Your task to perform on an android device: toggle translation in the chrome app Image 0: 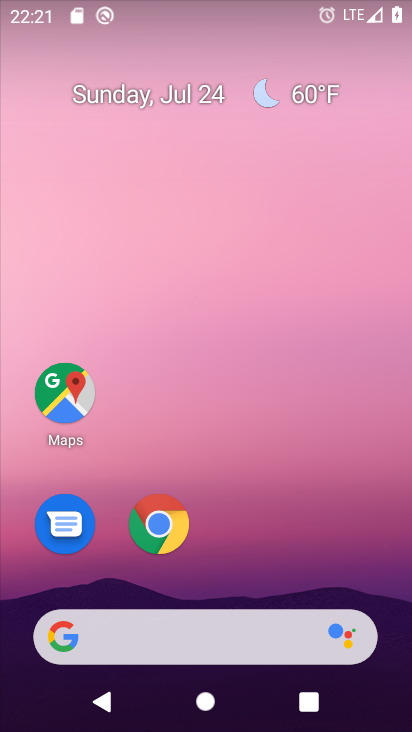
Step 0: click (160, 520)
Your task to perform on an android device: toggle translation in the chrome app Image 1: 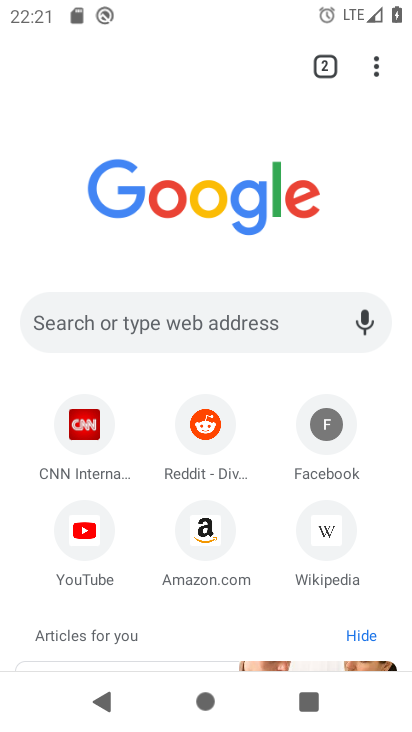
Step 1: click (373, 73)
Your task to perform on an android device: toggle translation in the chrome app Image 2: 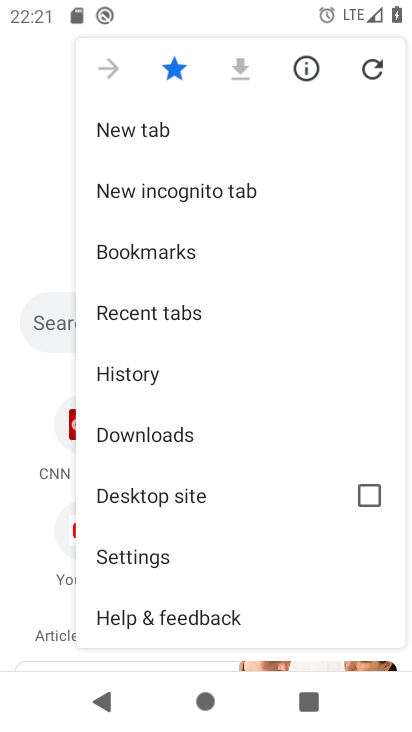
Step 2: click (163, 549)
Your task to perform on an android device: toggle translation in the chrome app Image 3: 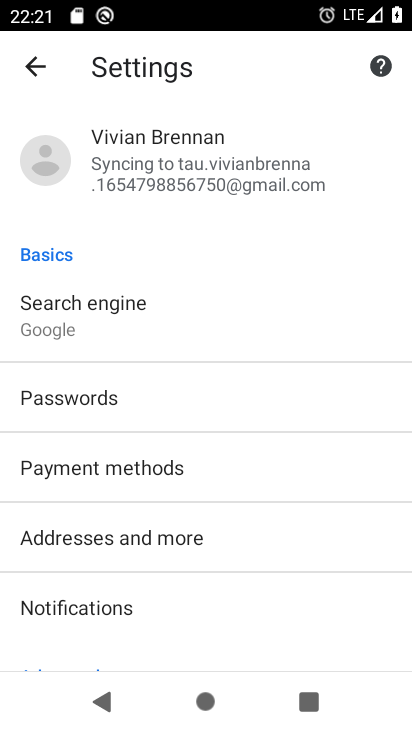
Step 3: drag from (248, 622) to (255, 198)
Your task to perform on an android device: toggle translation in the chrome app Image 4: 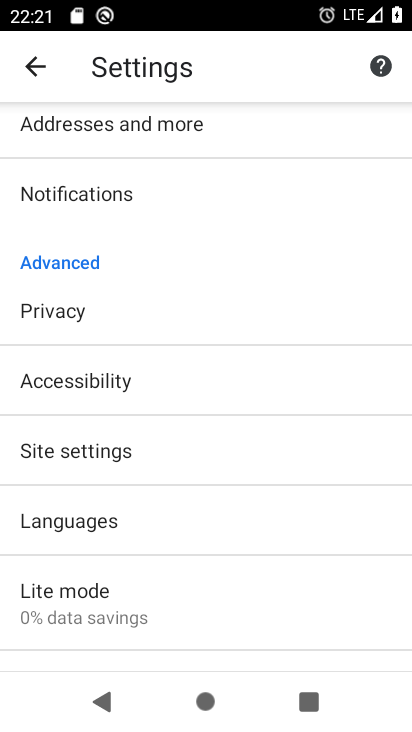
Step 4: click (205, 530)
Your task to perform on an android device: toggle translation in the chrome app Image 5: 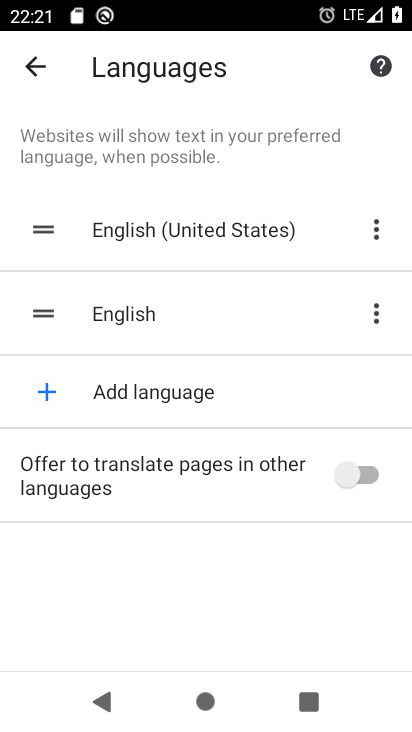
Step 5: click (359, 468)
Your task to perform on an android device: toggle translation in the chrome app Image 6: 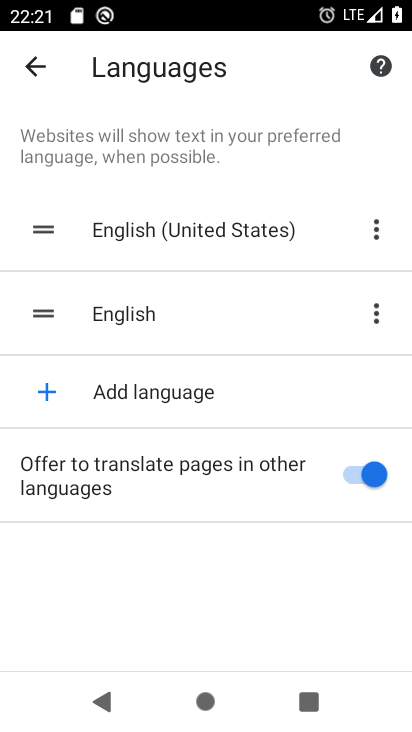
Step 6: task complete